Your task to perform on an android device: Is it going to rain this weekend? Image 0: 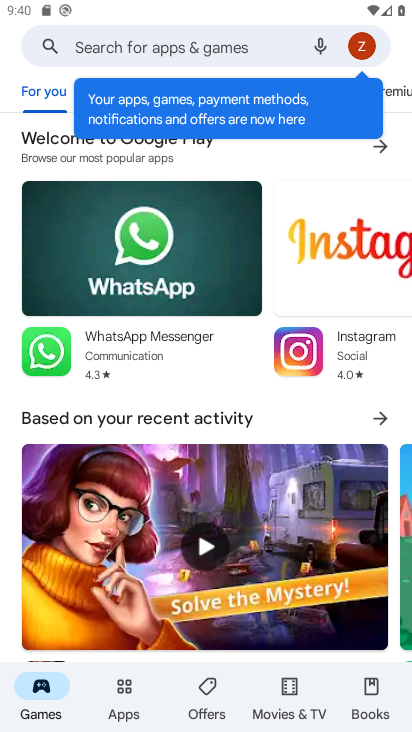
Step 0: press home button
Your task to perform on an android device: Is it going to rain this weekend? Image 1: 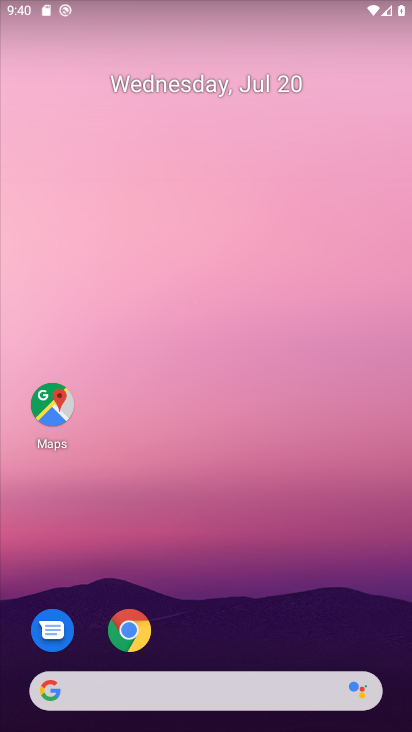
Step 1: drag from (210, 682) to (188, 51)
Your task to perform on an android device: Is it going to rain this weekend? Image 2: 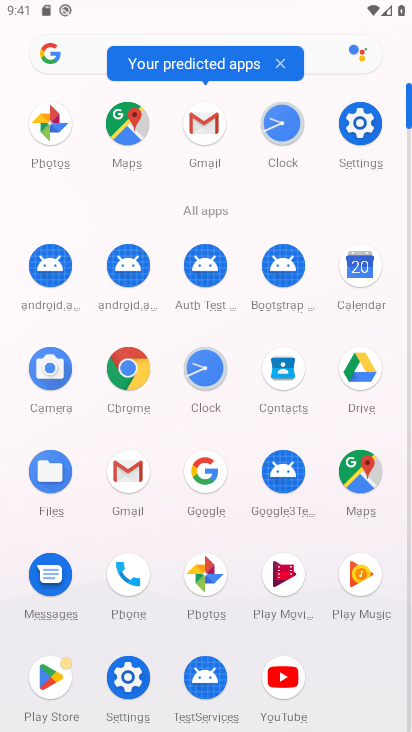
Step 2: click (126, 350)
Your task to perform on an android device: Is it going to rain this weekend? Image 3: 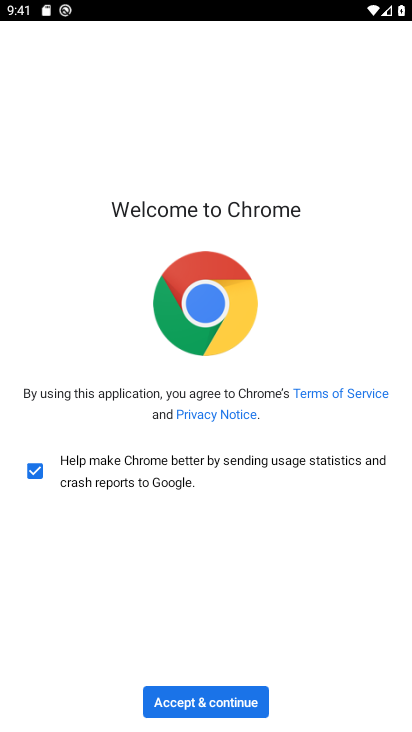
Step 3: click (255, 693)
Your task to perform on an android device: Is it going to rain this weekend? Image 4: 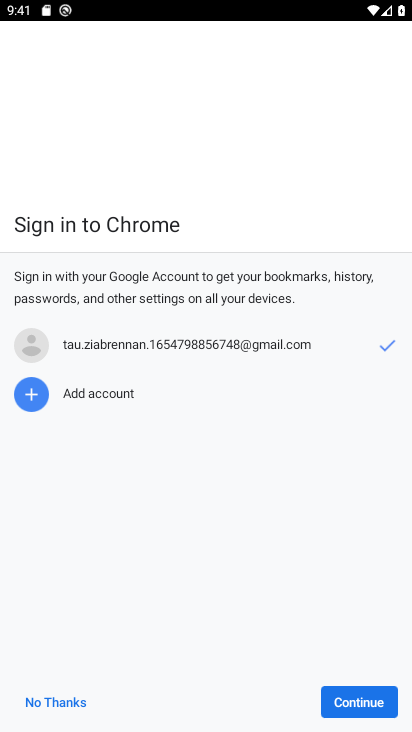
Step 4: click (385, 708)
Your task to perform on an android device: Is it going to rain this weekend? Image 5: 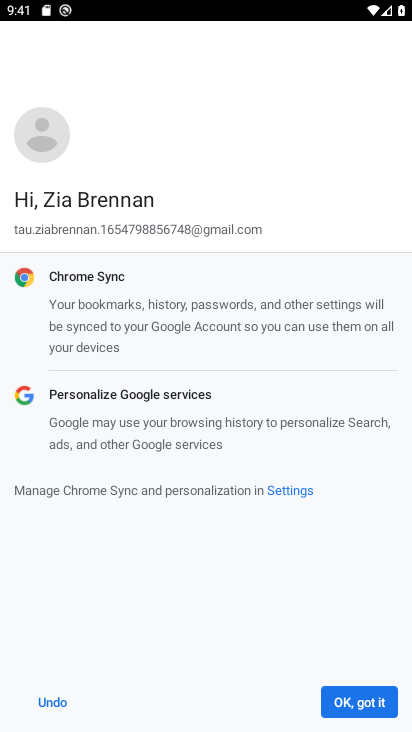
Step 5: click (366, 700)
Your task to perform on an android device: Is it going to rain this weekend? Image 6: 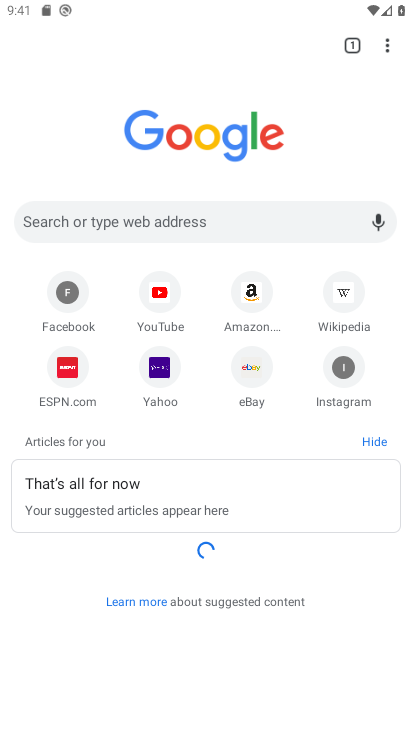
Step 6: click (175, 216)
Your task to perform on an android device: Is it going to rain this weekend? Image 7: 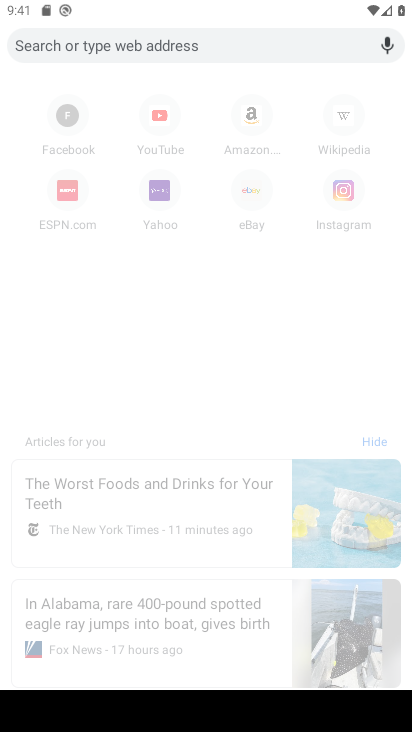
Step 7: type "weather this weekend"
Your task to perform on an android device: Is it going to rain this weekend? Image 8: 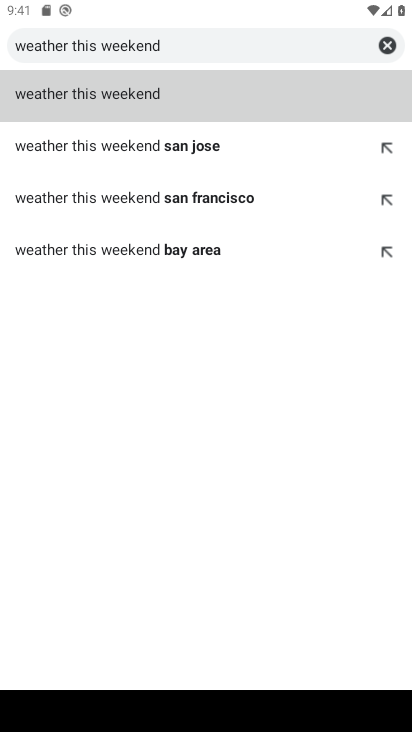
Step 8: click (188, 91)
Your task to perform on an android device: Is it going to rain this weekend? Image 9: 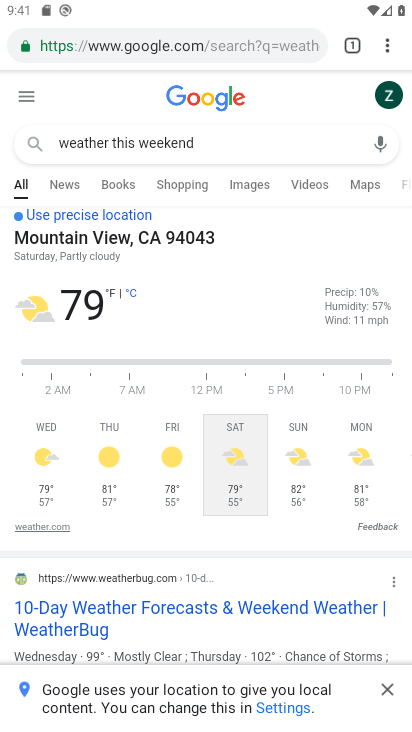
Step 9: task complete